Your task to perform on an android device: toggle wifi Image 0: 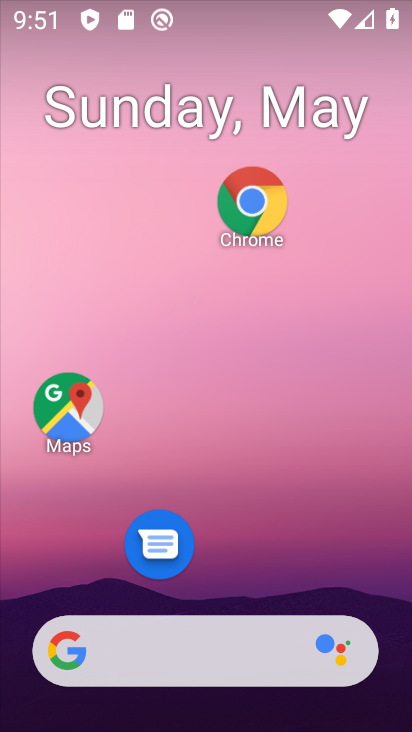
Step 0: press home button
Your task to perform on an android device: toggle wifi Image 1: 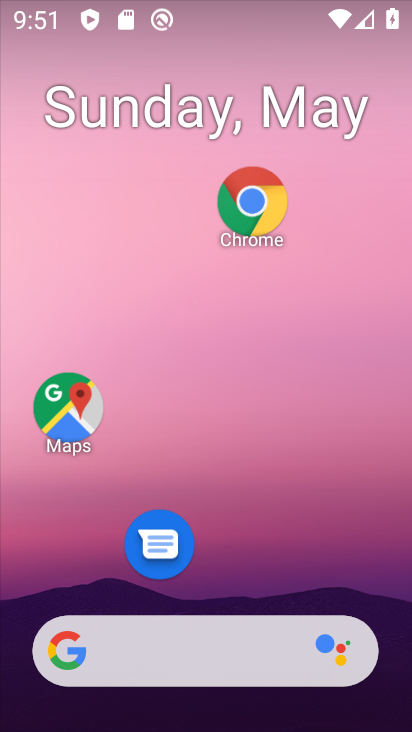
Step 1: drag from (330, 591) to (312, 115)
Your task to perform on an android device: toggle wifi Image 2: 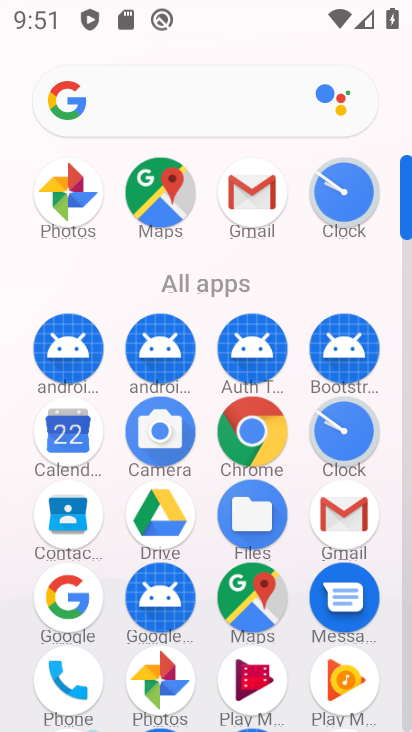
Step 2: drag from (197, 538) to (244, 98)
Your task to perform on an android device: toggle wifi Image 3: 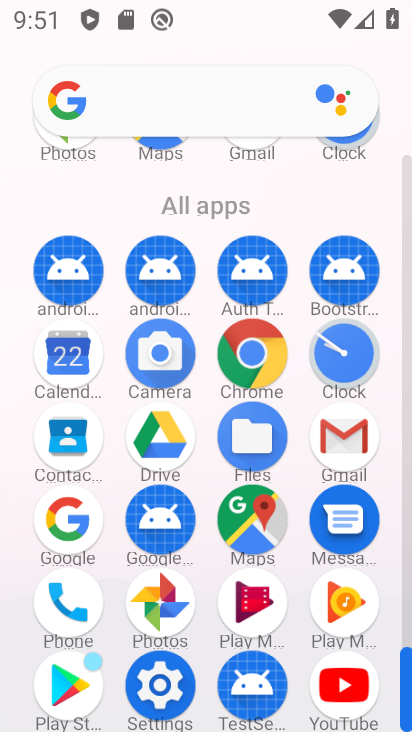
Step 3: click (156, 664)
Your task to perform on an android device: toggle wifi Image 4: 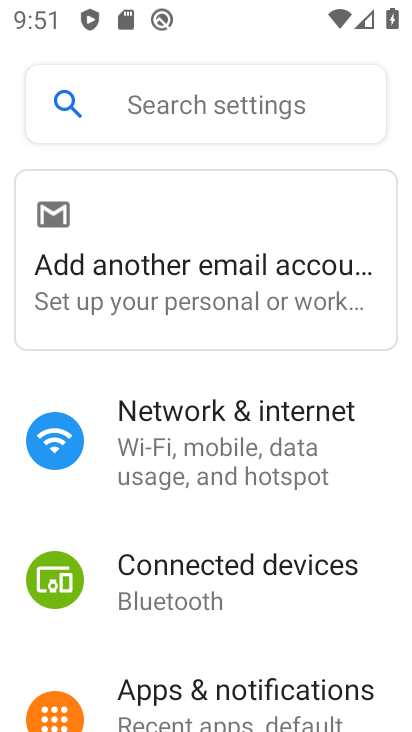
Step 4: click (202, 396)
Your task to perform on an android device: toggle wifi Image 5: 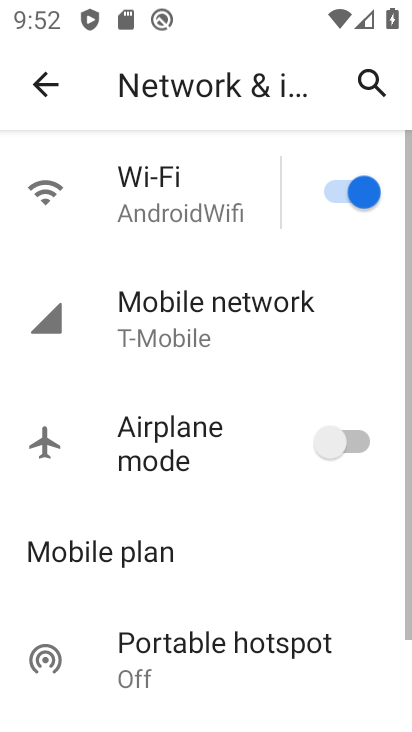
Step 5: click (354, 202)
Your task to perform on an android device: toggle wifi Image 6: 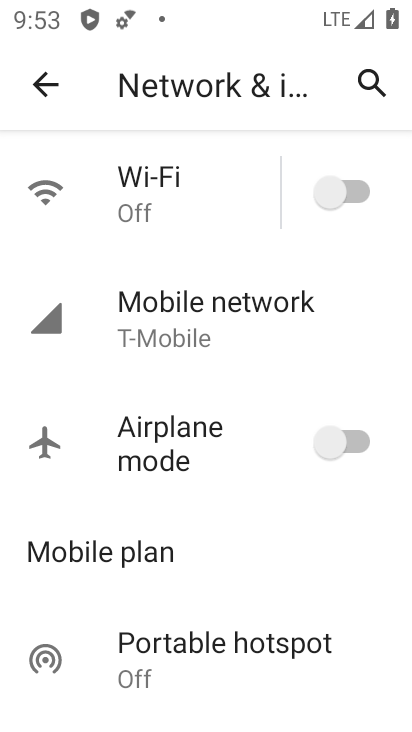
Step 6: task complete